Your task to perform on an android device: Open accessibility settings Image 0: 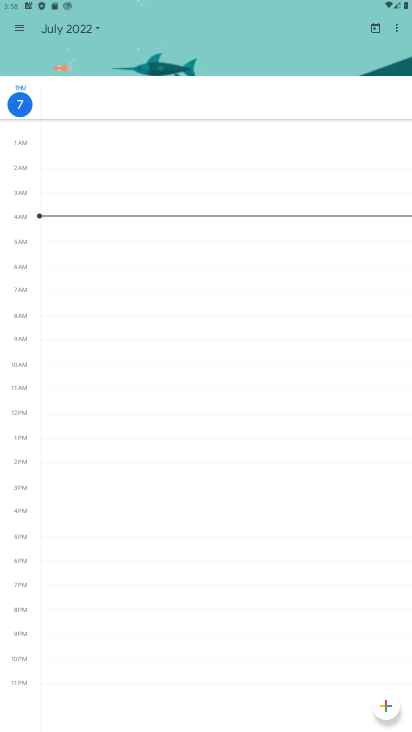
Step 0: press back button
Your task to perform on an android device: Open accessibility settings Image 1: 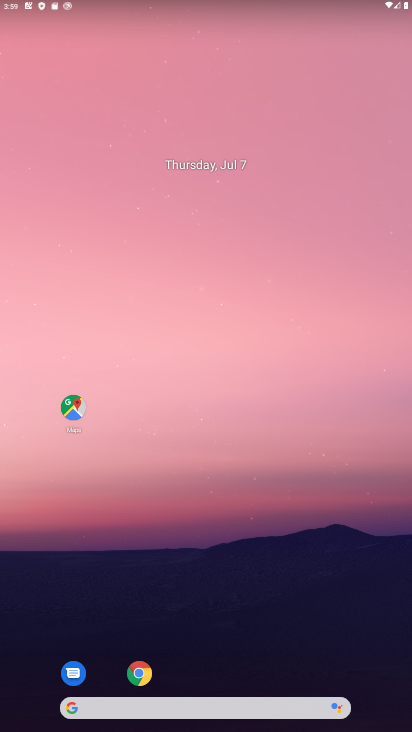
Step 1: drag from (212, 627) to (250, 34)
Your task to perform on an android device: Open accessibility settings Image 2: 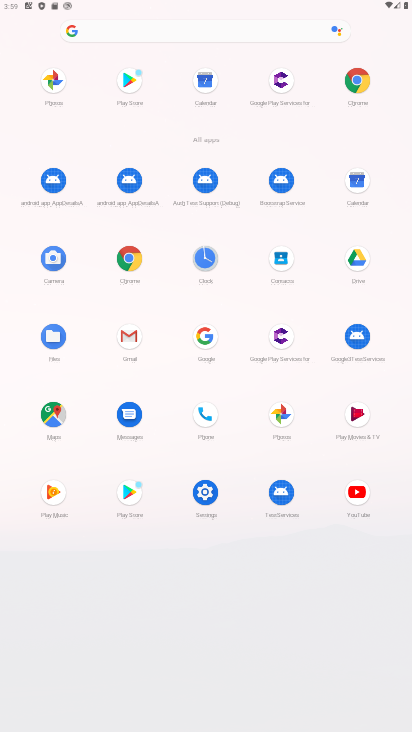
Step 2: click (209, 498)
Your task to perform on an android device: Open accessibility settings Image 3: 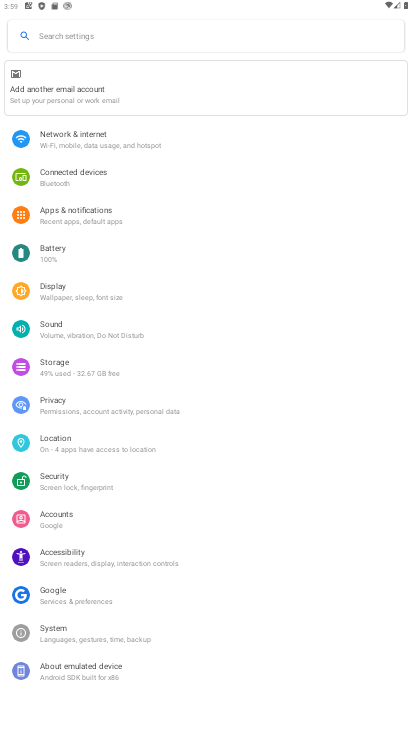
Step 3: click (50, 552)
Your task to perform on an android device: Open accessibility settings Image 4: 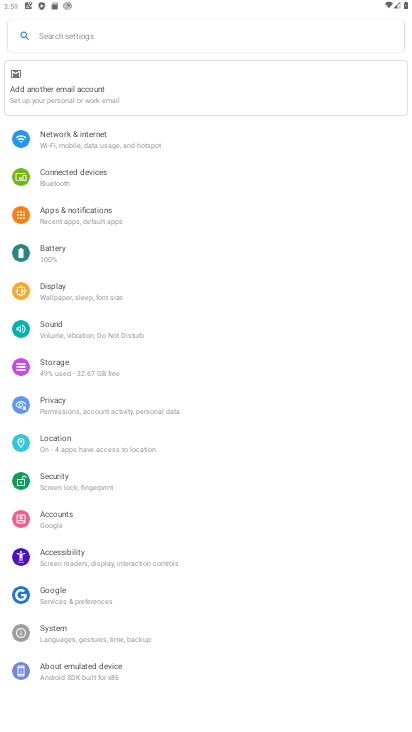
Step 4: click (57, 544)
Your task to perform on an android device: Open accessibility settings Image 5: 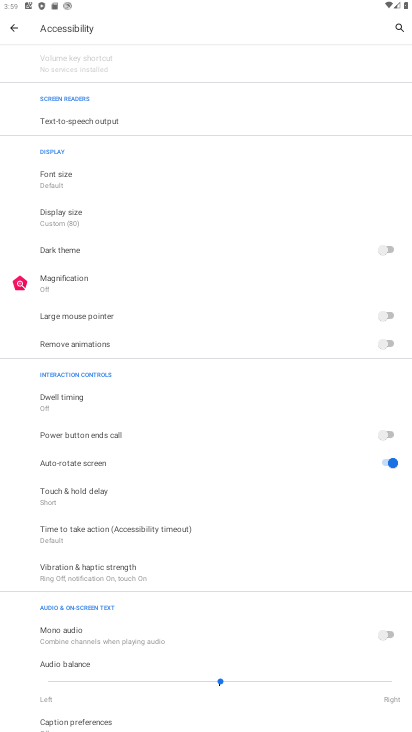
Step 5: task complete